Your task to perform on an android device: Is it going to rain this weekend? Image 0: 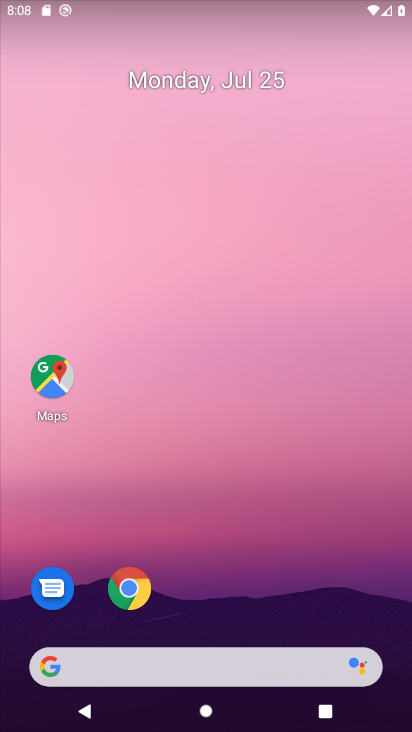
Step 0: click (291, 666)
Your task to perform on an android device: Is it going to rain this weekend? Image 1: 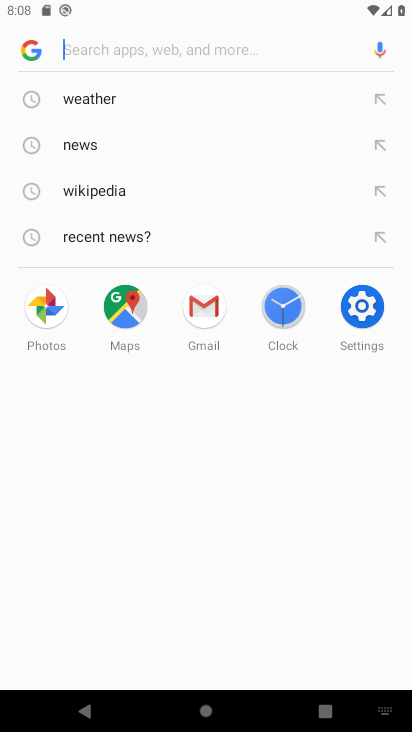
Step 1: click (141, 101)
Your task to perform on an android device: Is it going to rain this weekend? Image 2: 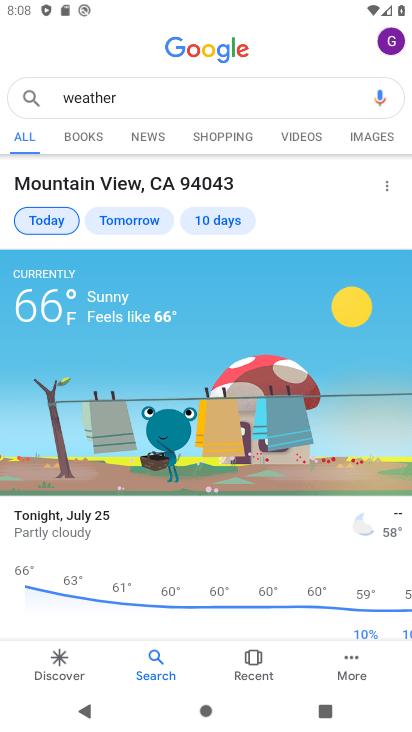
Step 2: click (221, 223)
Your task to perform on an android device: Is it going to rain this weekend? Image 3: 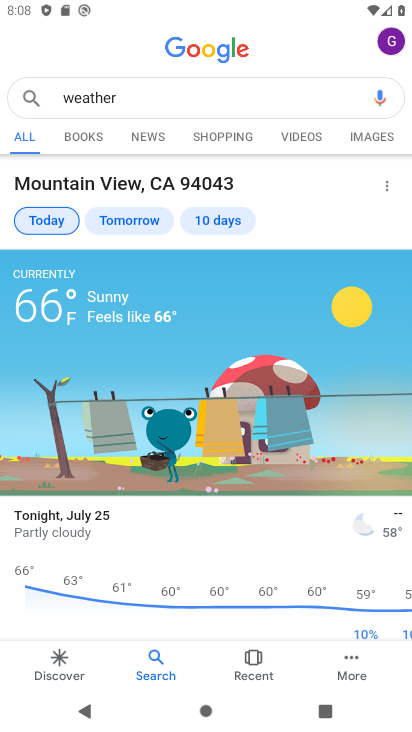
Step 3: click (221, 220)
Your task to perform on an android device: Is it going to rain this weekend? Image 4: 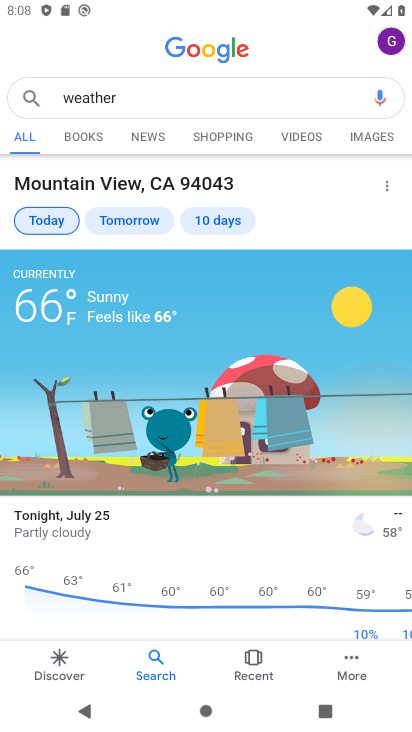
Step 4: click (221, 220)
Your task to perform on an android device: Is it going to rain this weekend? Image 5: 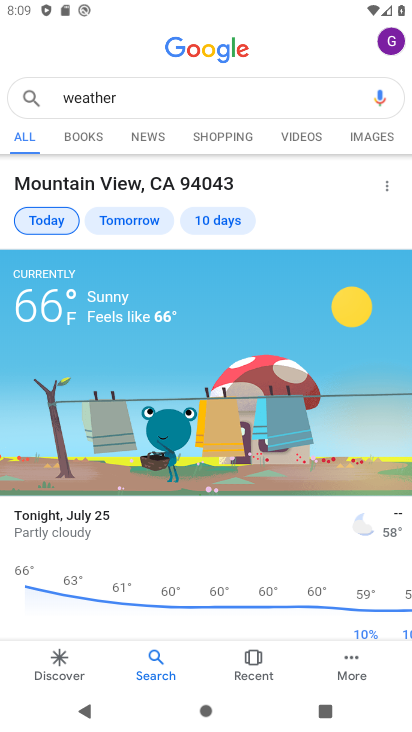
Step 5: task complete